Your task to perform on an android device: Open Google Chrome Image 0: 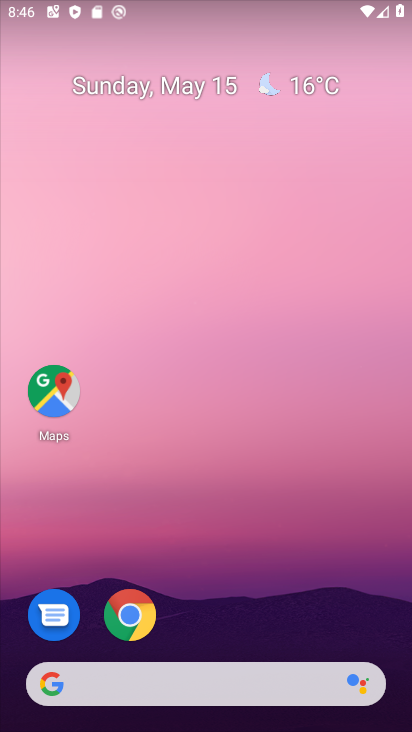
Step 0: click (128, 631)
Your task to perform on an android device: Open Google Chrome Image 1: 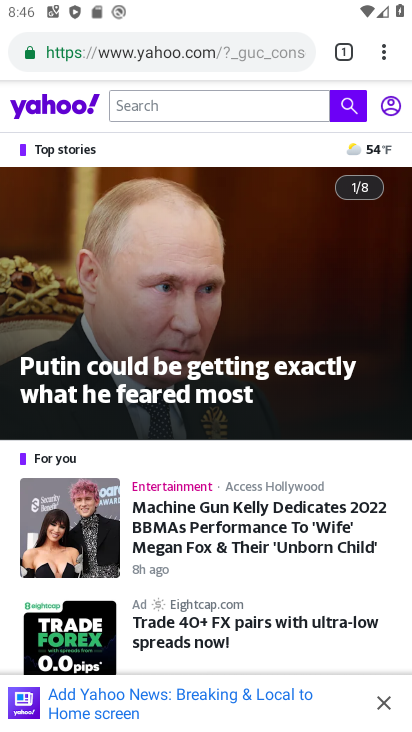
Step 1: task complete